Your task to perform on an android device: Do I have any events this weekend? Image 0: 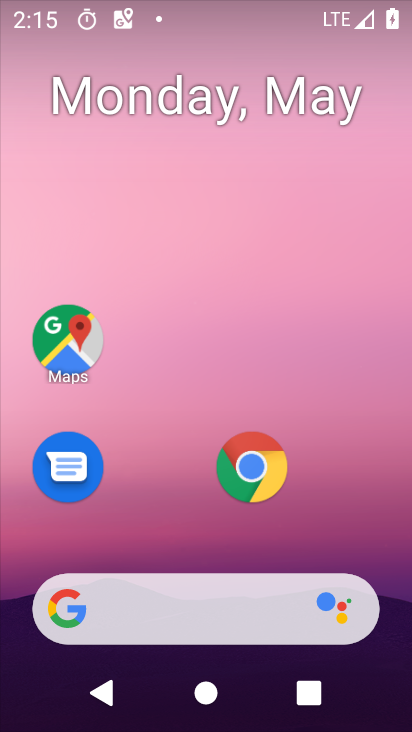
Step 0: drag from (216, 546) to (210, 134)
Your task to perform on an android device: Do I have any events this weekend? Image 1: 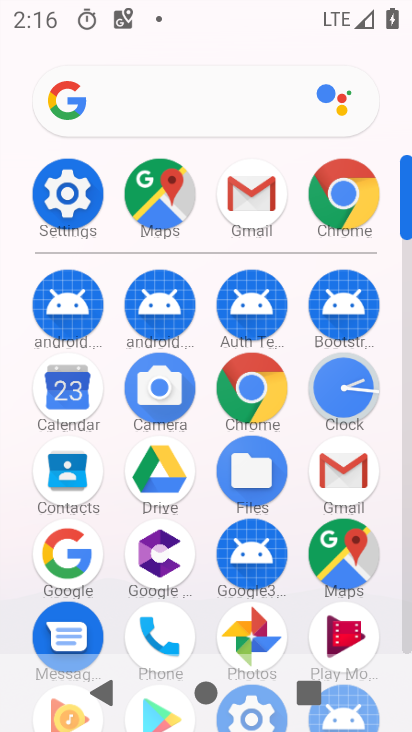
Step 1: click (54, 402)
Your task to perform on an android device: Do I have any events this weekend? Image 2: 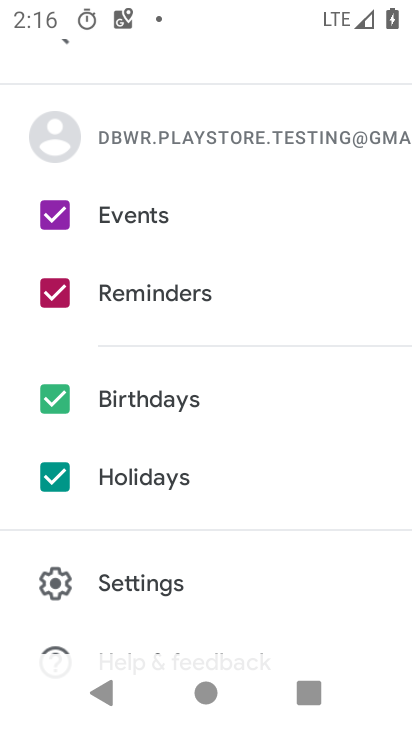
Step 2: drag from (171, 222) to (249, 731)
Your task to perform on an android device: Do I have any events this weekend? Image 3: 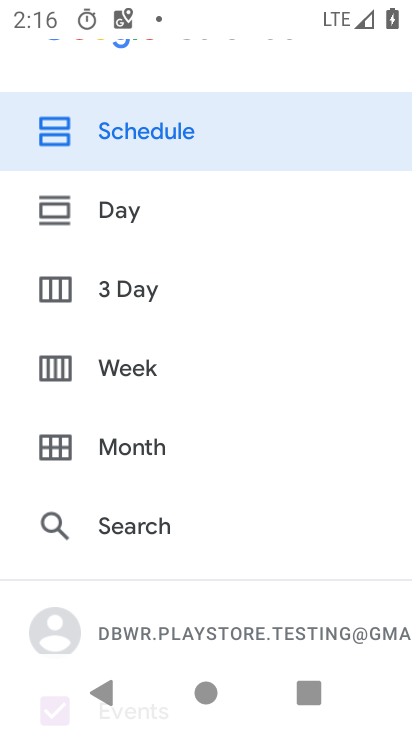
Step 3: drag from (143, 221) to (254, 649)
Your task to perform on an android device: Do I have any events this weekend? Image 4: 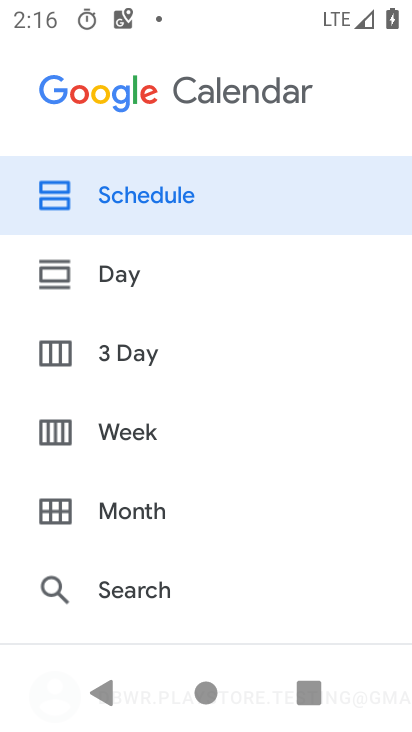
Step 4: click (160, 204)
Your task to perform on an android device: Do I have any events this weekend? Image 5: 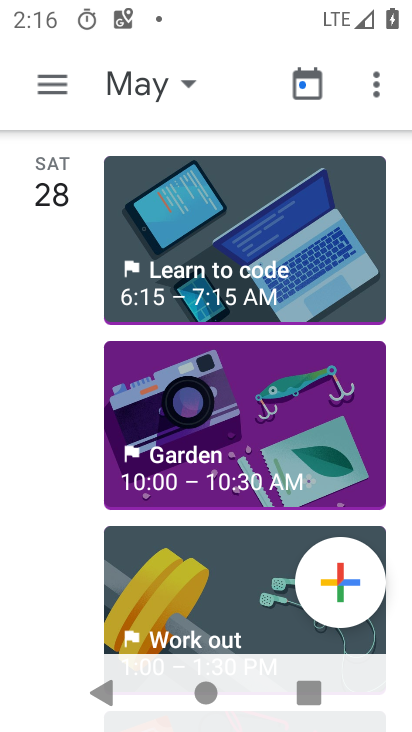
Step 5: click (152, 84)
Your task to perform on an android device: Do I have any events this weekend? Image 6: 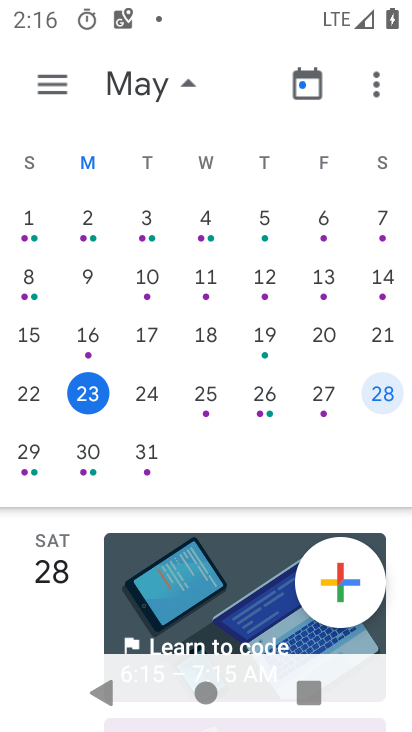
Step 6: click (308, 391)
Your task to perform on an android device: Do I have any events this weekend? Image 7: 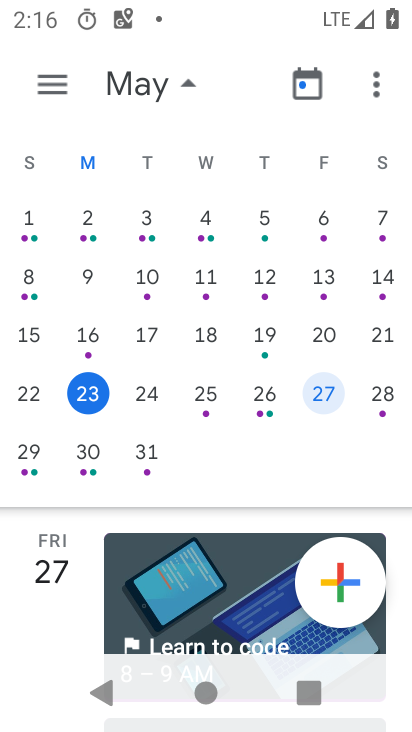
Step 7: task complete